Your task to perform on an android device: make emails show in primary in the gmail app Image 0: 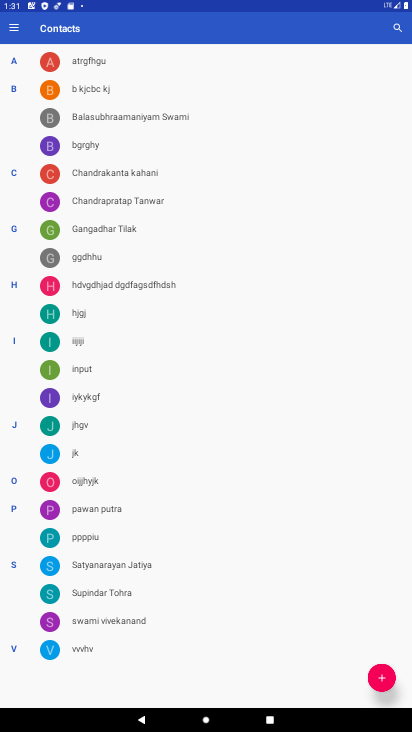
Step 0: press home button
Your task to perform on an android device: make emails show in primary in the gmail app Image 1: 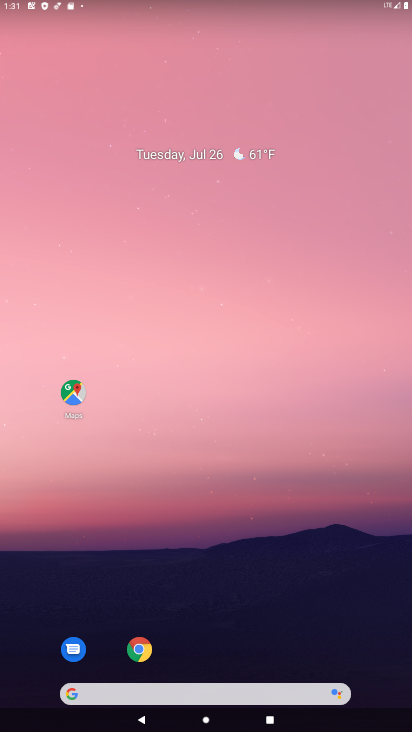
Step 1: drag from (189, 653) to (192, 198)
Your task to perform on an android device: make emails show in primary in the gmail app Image 2: 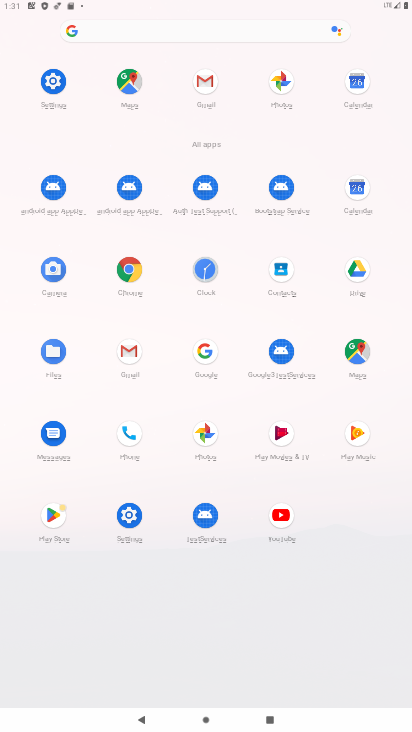
Step 2: click (203, 91)
Your task to perform on an android device: make emails show in primary in the gmail app Image 3: 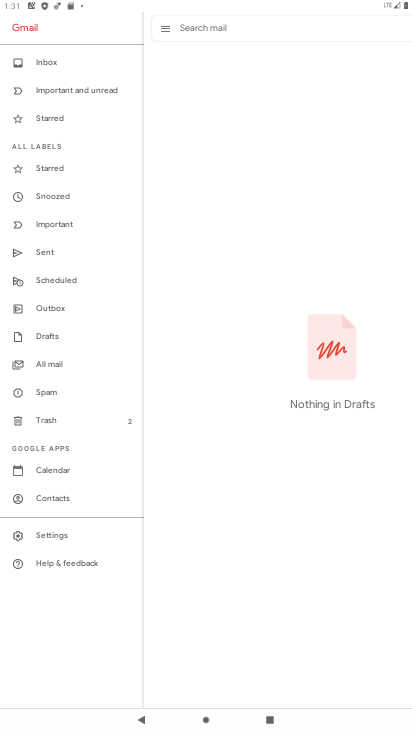
Step 3: click (50, 531)
Your task to perform on an android device: make emails show in primary in the gmail app Image 4: 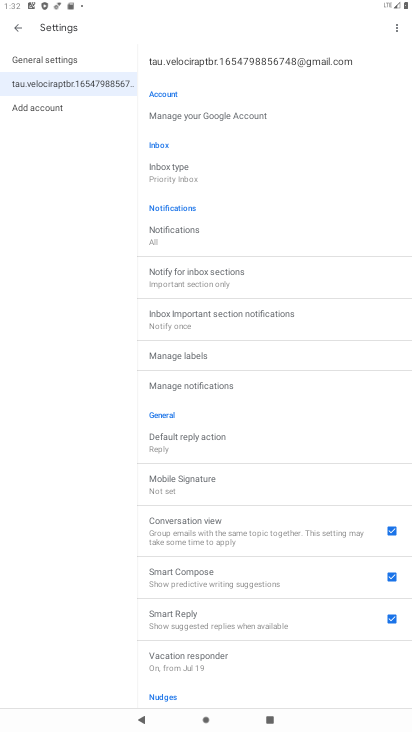
Step 4: task complete